Your task to perform on an android device: toggle data saver in the chrome app Image 0: 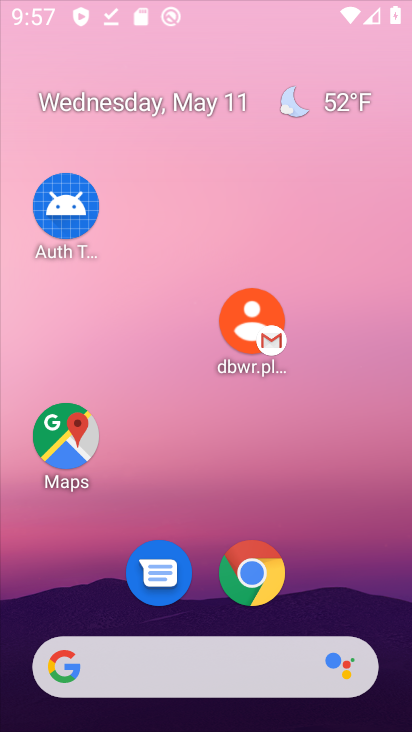
Step 0: drag from (238, 254) to (124, 46)
Your task to perform on an android device: toggle data saver in the chrome app Image 1: 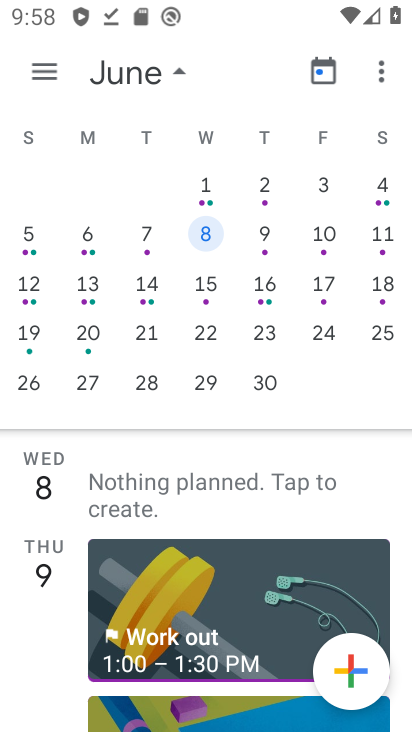
Step 1: press home button
Your task to perform on an android device: toggle data saver in the chrome app Image 2: 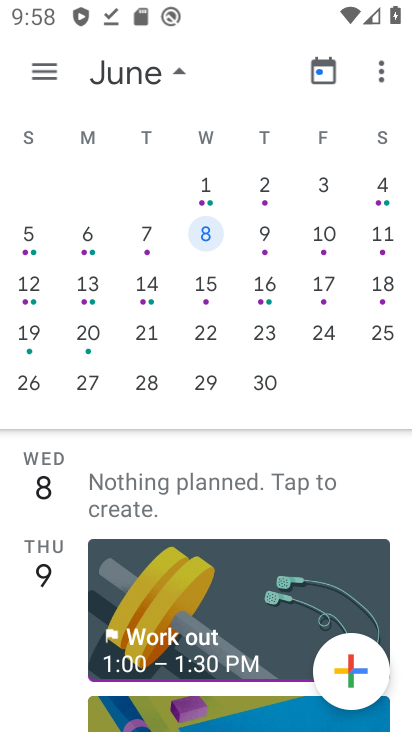
Step 2: press home button
Your task to perform on an android device: toggle data saver in the chrome app Image 3: 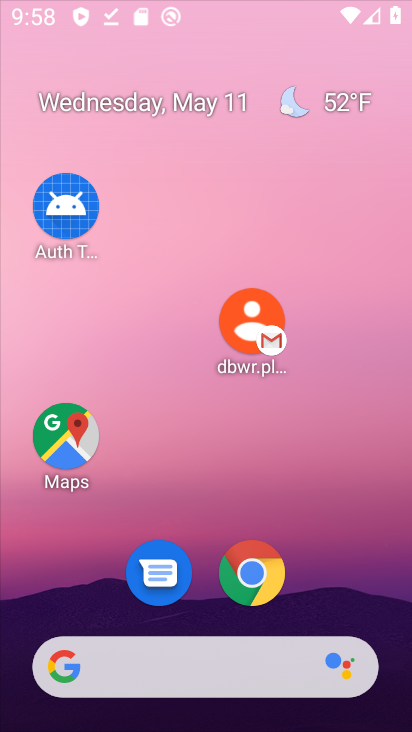
Step 3: press home button
Your task to perform on an android device: toggle data saver in the chrome app Image 4: 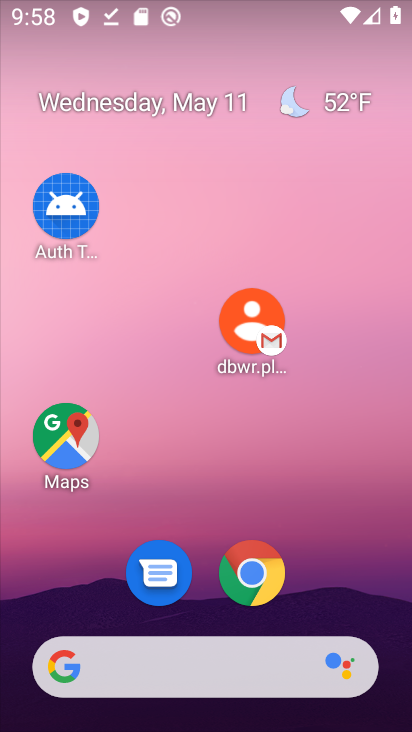
Step 4: press home button
Your task to perform on an android device: toggle data saver in the chrome app Image 5: 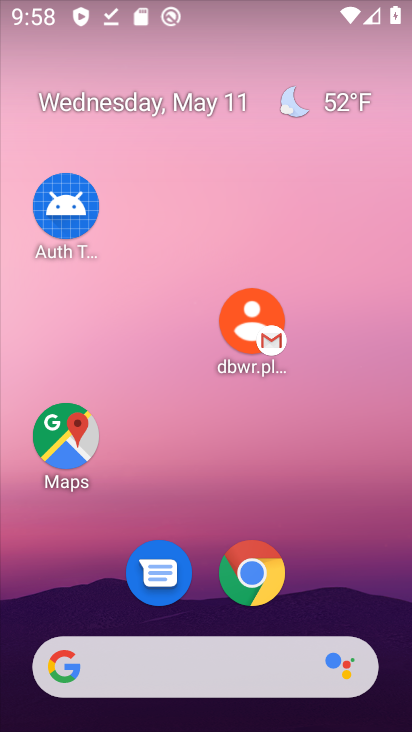
Step 5: press home button
Your task to perform on an android device: toggle data saver in the chrome app Image 6: 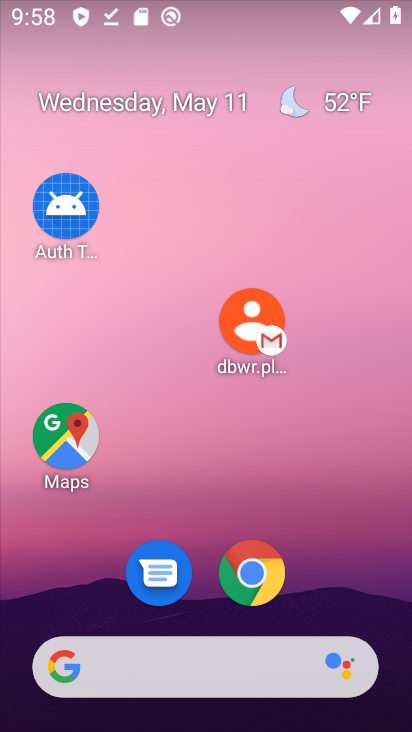
Step 6: drag from (333, 559) to (142, 33)
Your task to perform on an android device: toggle data saver in the chrome app Image 7: 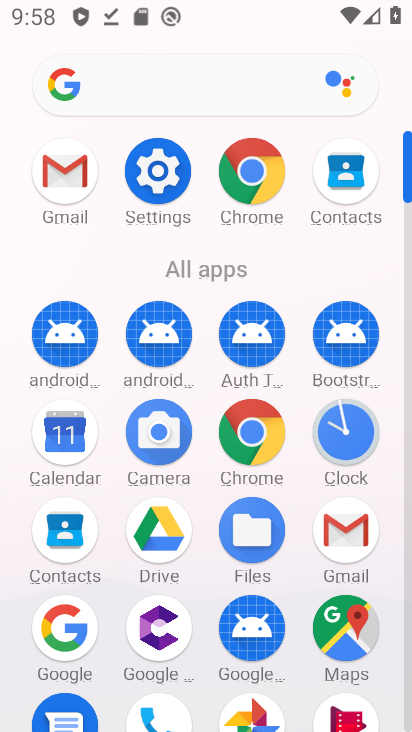
Step 7: click (250, 184)
Your task to perform on an android device: toggle data saver in the chrome app Image 8: 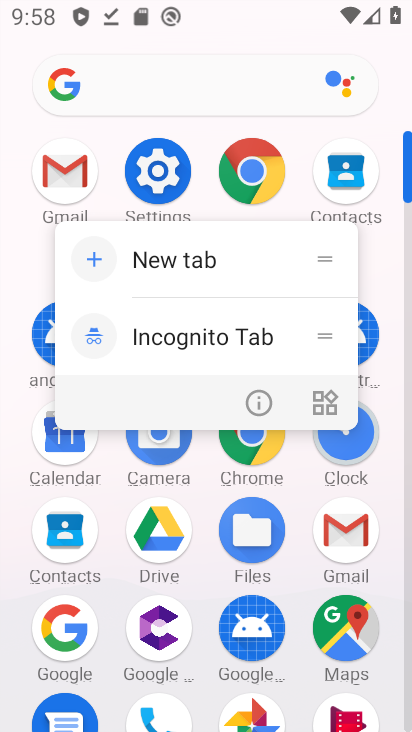
Step 8: click (245, 172)
Your task to perform on an android device: toggle data saver in the chrome app Image 9: 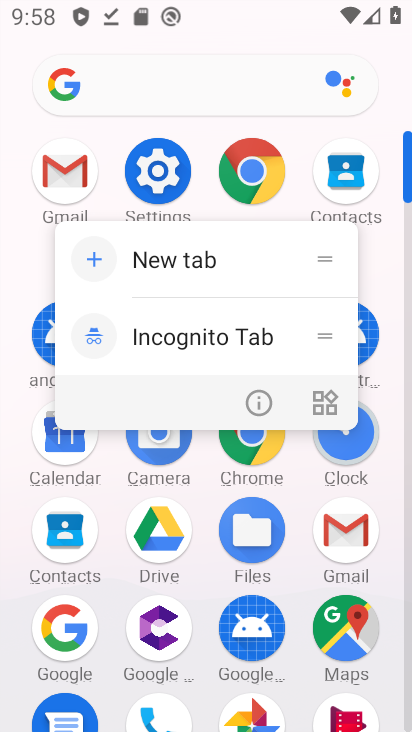
Step 9: click (246, 171)
Your task to perform on an android device: toggle data saver in the chrome app Image 10: 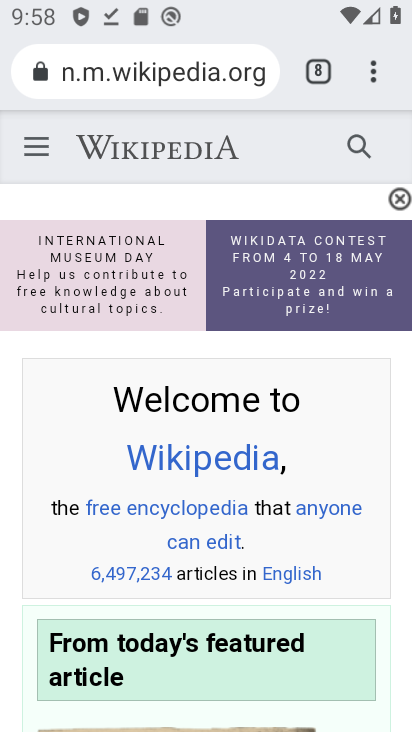
Step 10: click (364, 57)
Your task to perform on an android device: toggle data saver in the chrome app Image 11: 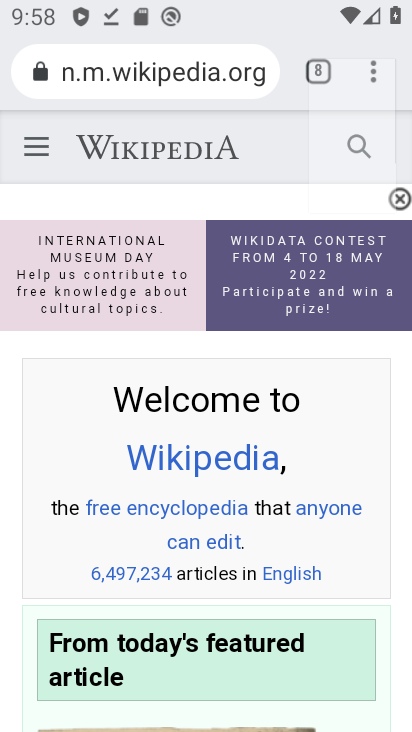
Step 11: click (373, 61)
Your task to perform on an android device: toggle data saver in the chrome app Image 12: 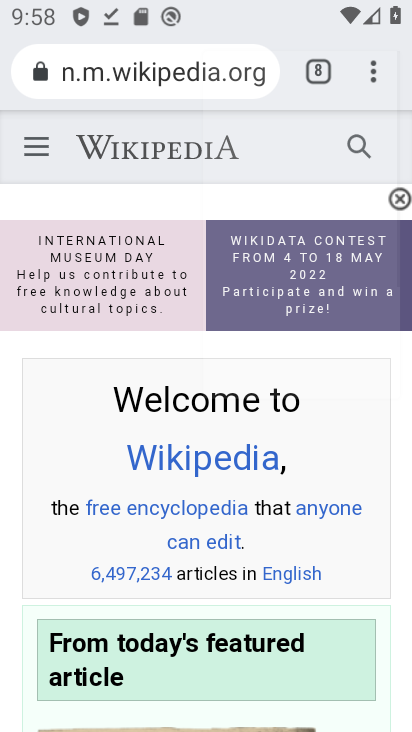
Step 12: click (373, 61)
Your task to perform on an android device: toggle data saver in the chrome app Image 13: 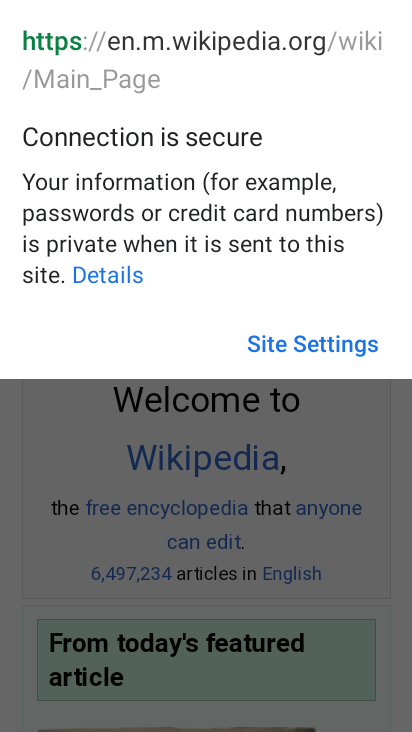
Step 13: click (229, 441)
Your task to perform on an android device: toggle data saver in the chrome app Image 14: 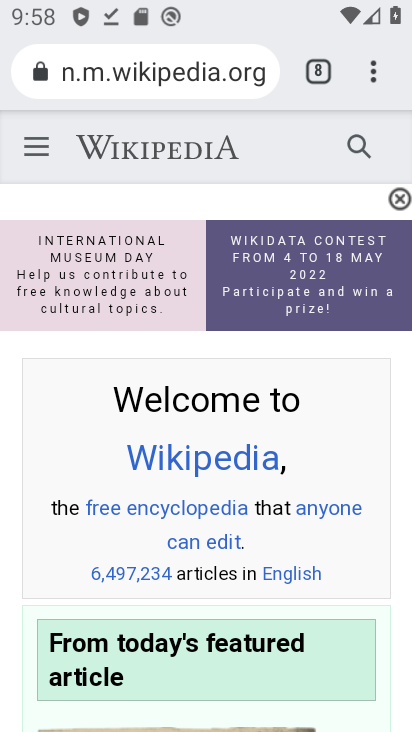
Step 14: drag from (372, 64) to (170, 415)
Your task to perform on an android device: toggle data saver in the chrome app Image 15: 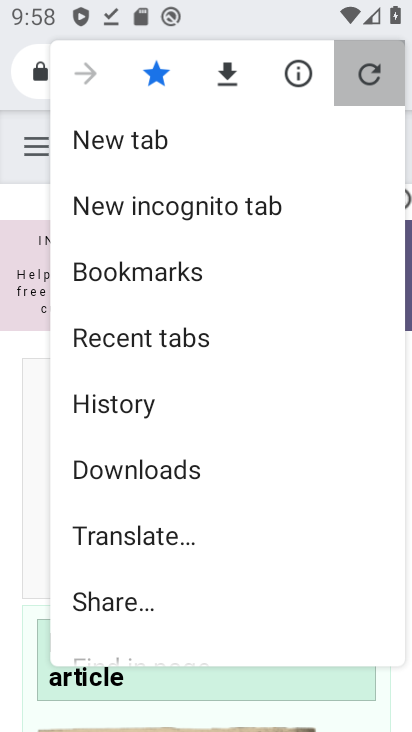
Step 15: click (205, 78)
Your task to perform on an android device: toggle data saver in the chrome app Image 16: 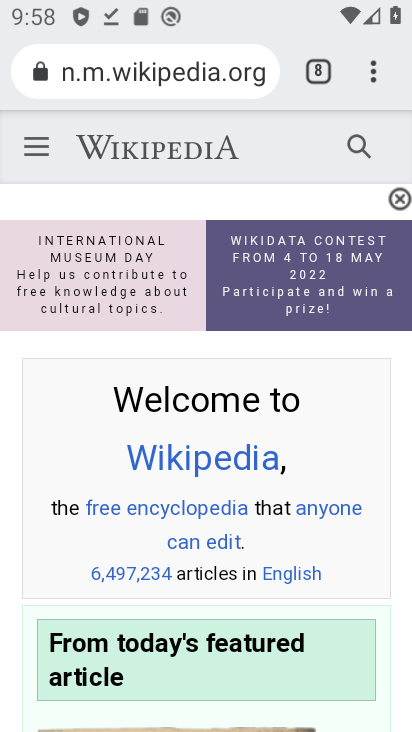
Step 16: click (193, 162)
Your task to perform on an android device: toggle data saver in the chrome app Image 17: 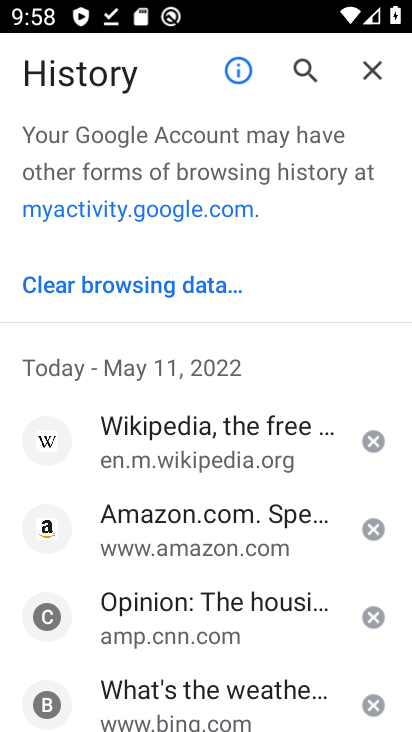
Step 17: click (369, 75)
Your task to perform on an android device: toggle data saver in the chrome app Image 18: 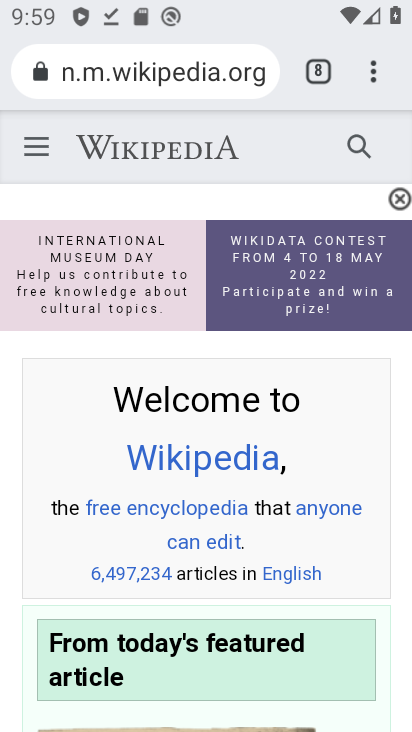
Step 18: click (374, 83)
Your task to perform on an android device: toggle data saver in the chrome app Image 19: 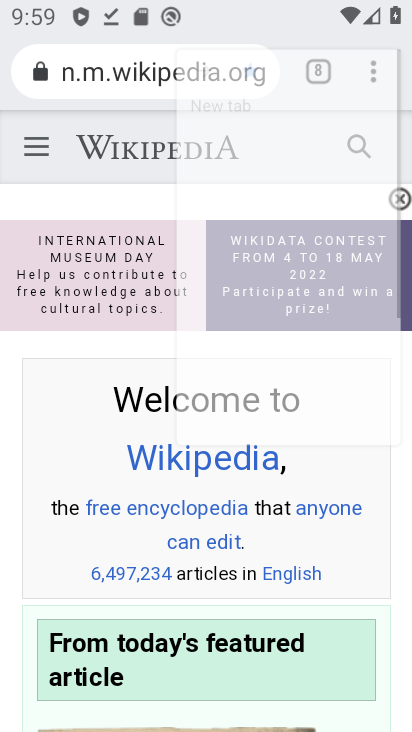
Step 19: click (374, 83)
Your task to perform on an android device: toggle data saver in the chrome app Image 20: 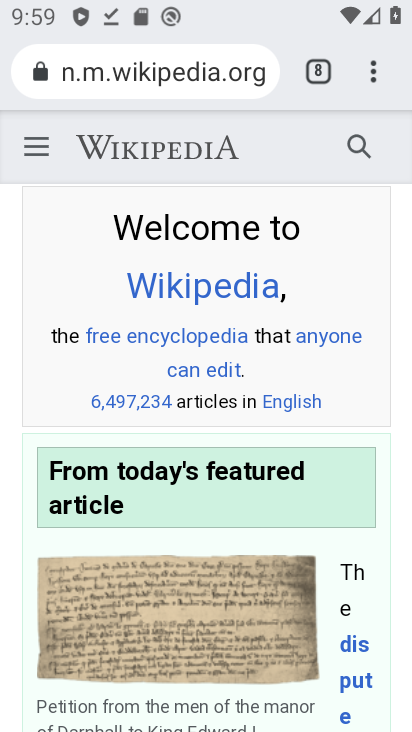
Step 20: drag from (178, 96) to (258, 133)
Your task to perform on an android device: toggle data saver in the chrome app Image 21: 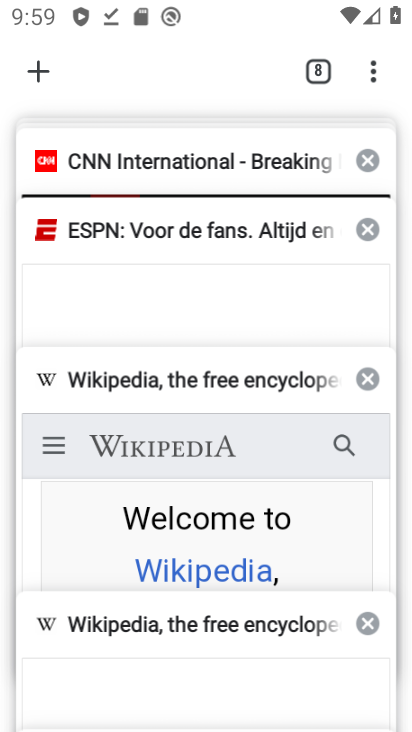
Step 21: drag from (363, 66) to (110, 274)
Your task to perform on an android device: toggle data saver in the chrome app Image 22: 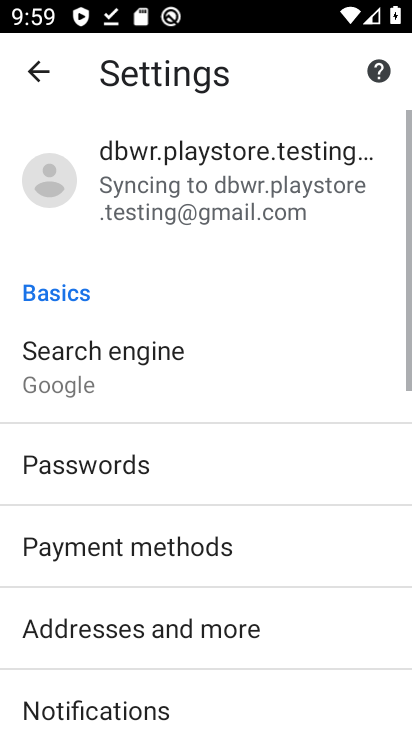
Step 22: drag from (358, 86) to (110, 274)
Your task to perform on an android device: toggle data saver in the chrome app Image 23: 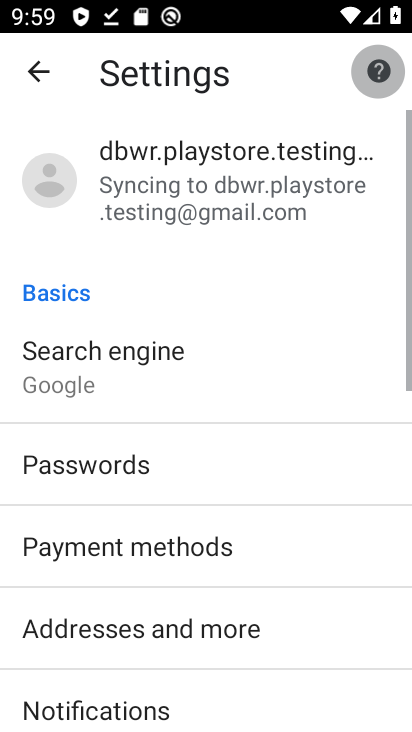
Step 23: drag from (358, 86) to (110, 274)
Your task to perform on an android device: toggle data saver in the chrome app Image 24: 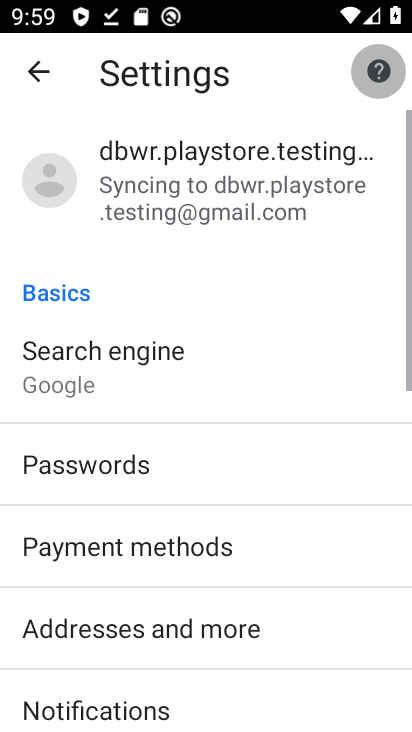
Step 24: click (111, 274)
Your task to perform on an android device: toggle data saver in the chrome app Image 25: 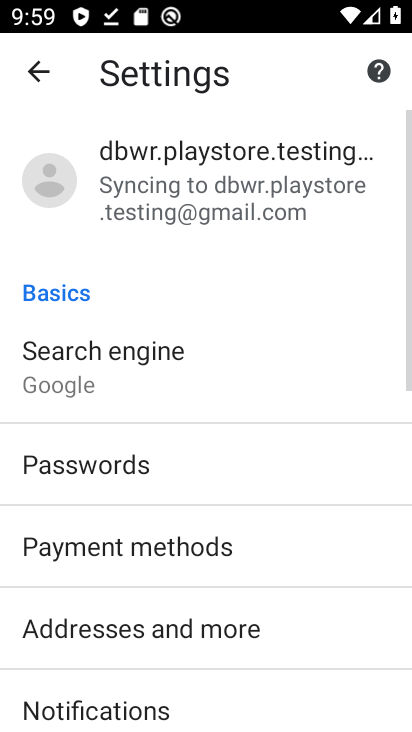
Step 25: click (113, 271)
Your task to perform on an android device: toggle data saver in the chrome app Image 26: 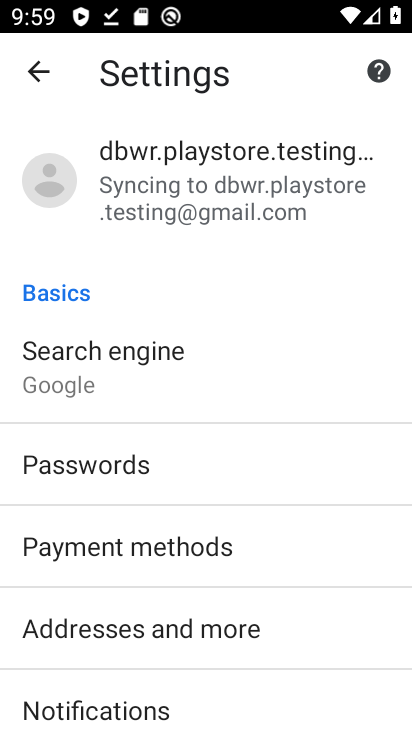
Step 26: click (115, 266)
Your task to perform on an android device: toggle data saver in the chrome app Image 27: 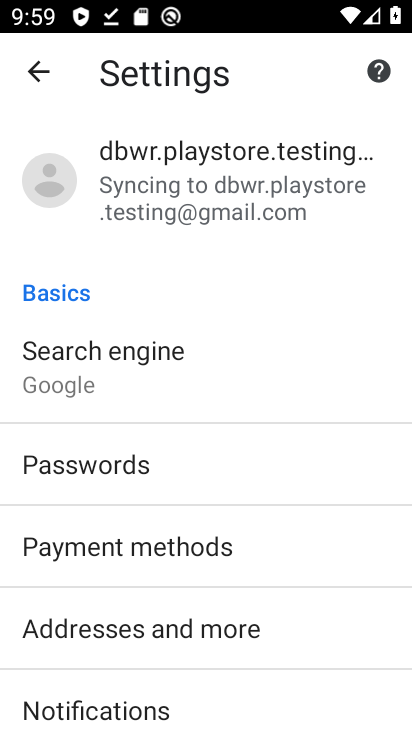
Step 27: drag from (192, 551) to (232, 91)
Your task to perform on an android device: toggle data saver in the chrome app Image 28: 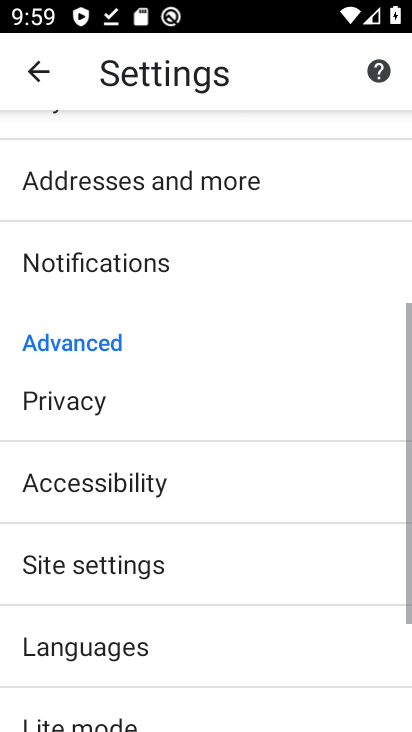
Step 28: drag from (234, 499) to (164, 120)
Your task to perform on an android device: toggle data saver in the chrome app Image 29: 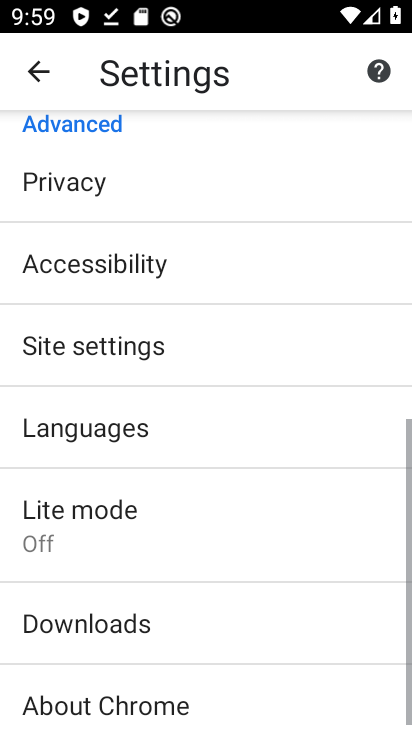
Step 29: drag from (218, 517) to (155, 38)
Your task to perform on an android device: toggle data saver in the chrome app Image 30: 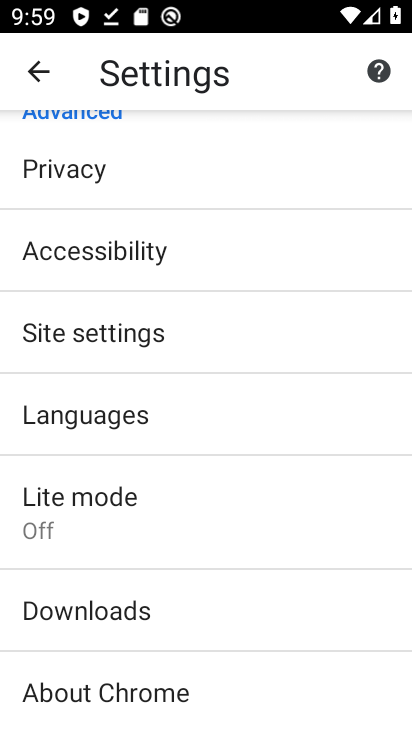
Step 30: click (82, 487)
Your task to perform on an android device: toggle data saver in the chrome app Image 31: 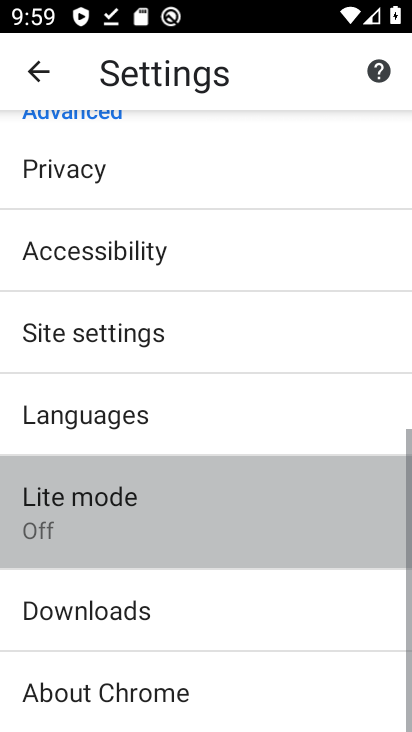
Step 31: click (82, 486)
Your task to perform on an android device: toggle data saver in the chrome app Image 32: 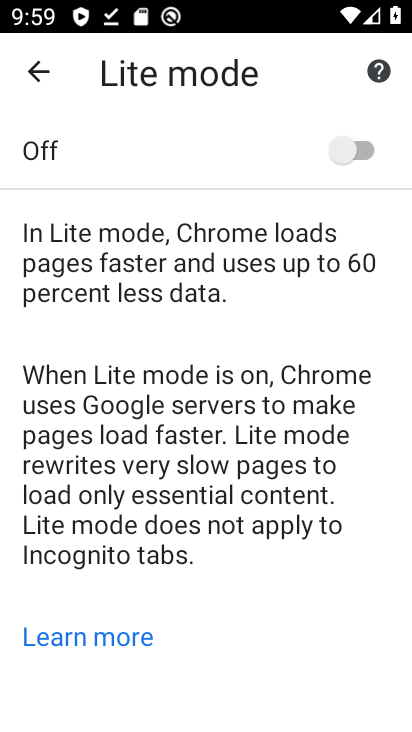
Step 32: click (340, 142)
Your task to perform on an android device: toggle data saver in the chrome app Image 33: 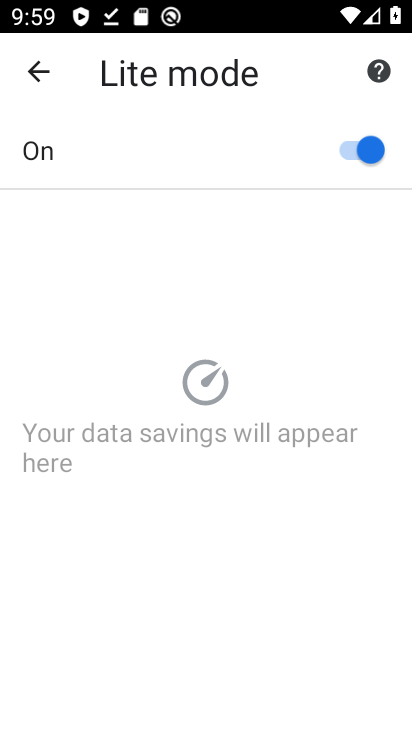
Step 33: task complete